Your task to perform on an android device: clear history in the chrome app Image 0: 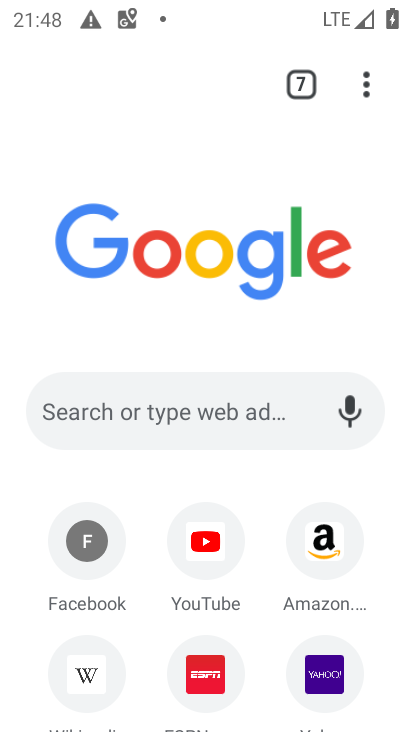
Step 0: press home button
Your task to perform on an android device: clear history in the chrome app Image 1: 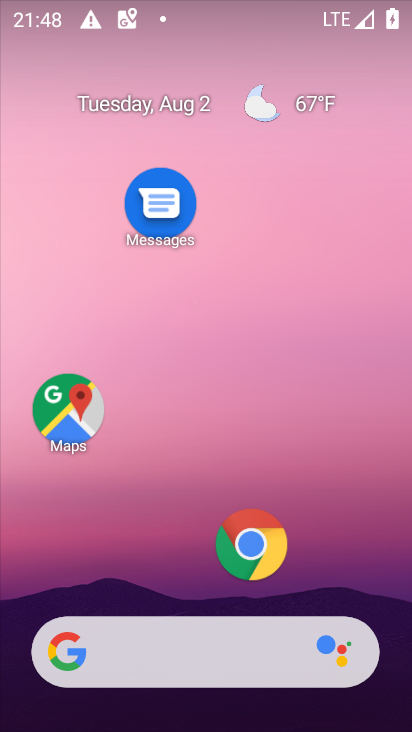
Step 1: click (248, 545)
Your task to perform on an android device: clear history in the chrome app Image 2: 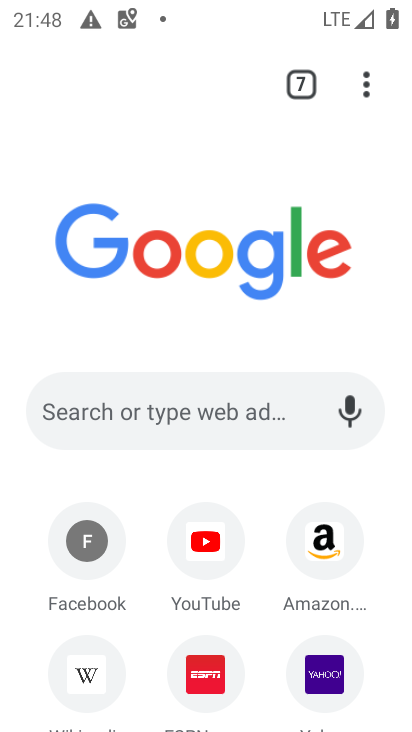
Step 2: click (376, 80)
Your task to perform on an android device: clear history in the chrome app Image 3: 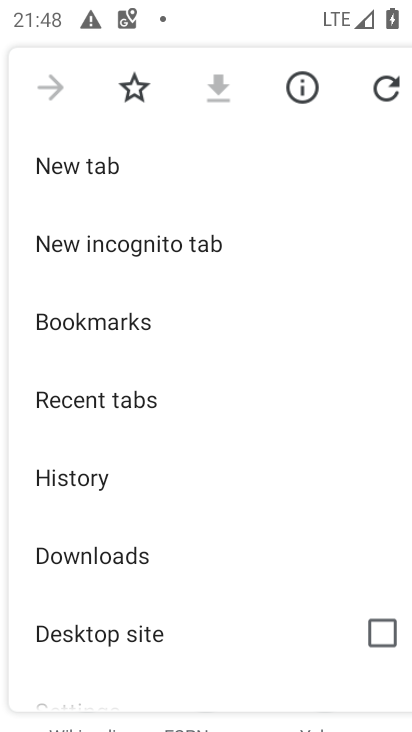
Step 3: click (96, 475)
Your task to perform on an android device: clear history in the chrome app Image 4: 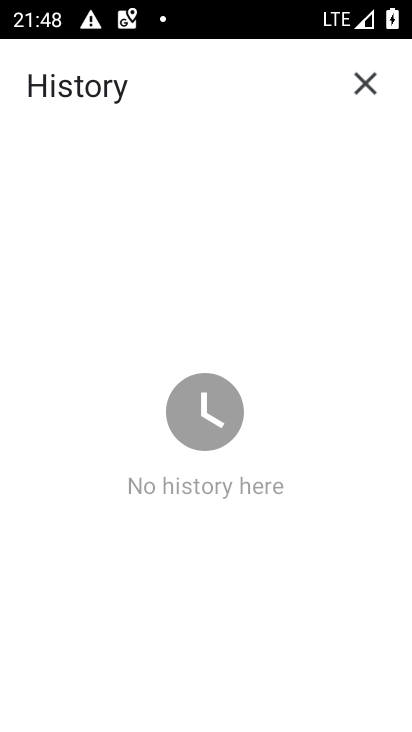
Step 4: task complete